Your task to perform on an android device: find which apps use the phone's location Image 0: 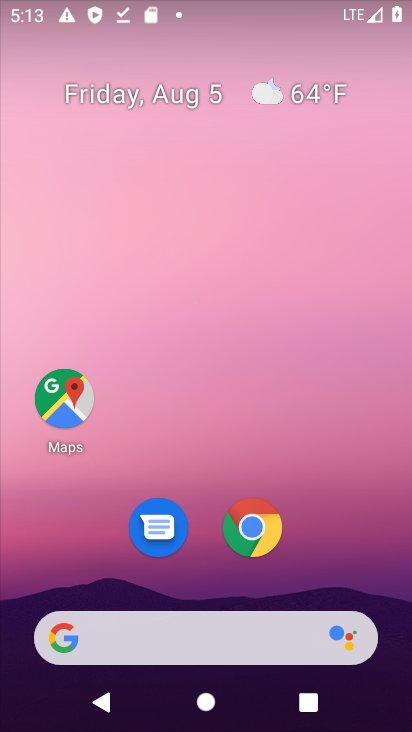
Step 0: drag from (227, 529) to (294, 110)
Your task to perform on an android device: find which apps use the phone's location Image 1: 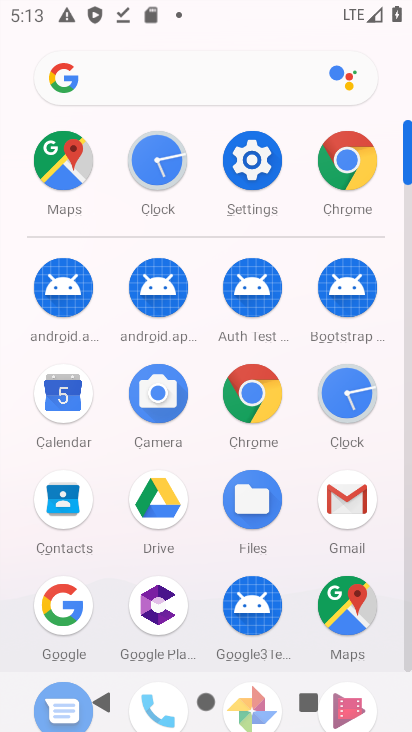
Step 1: click (234, 165)
Your task to perform on an android device: find which apps use the phone's location Image 2: 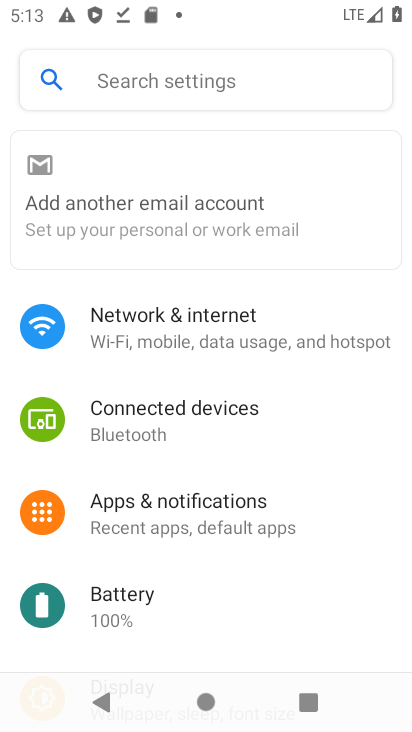
Step 2: drag from (177, 538) to (201, 134)
Your task to perform on an android device: find which apps use the phone's location Image 3: 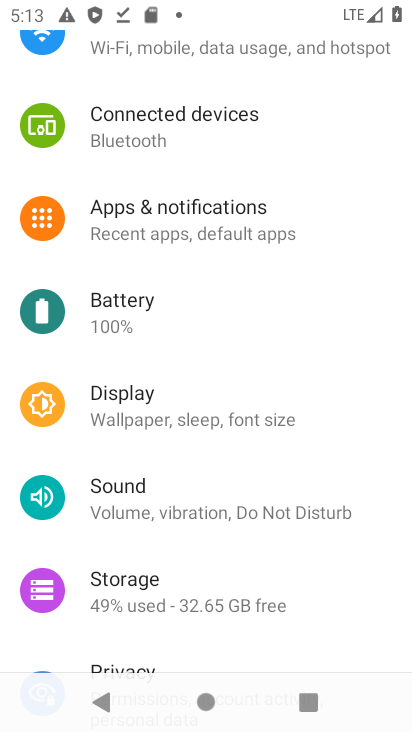
Step 3: drag from (196, 543) to (273, 148)
Your task to perform on an android device: find which apps use the phone's location Image 4: 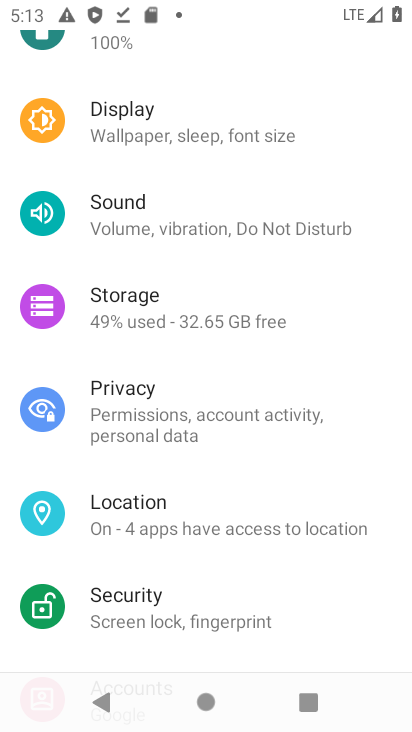
Step 4: click (142, 506)
Your task to perform on an android device: find which apps use the phone's location Image 5: 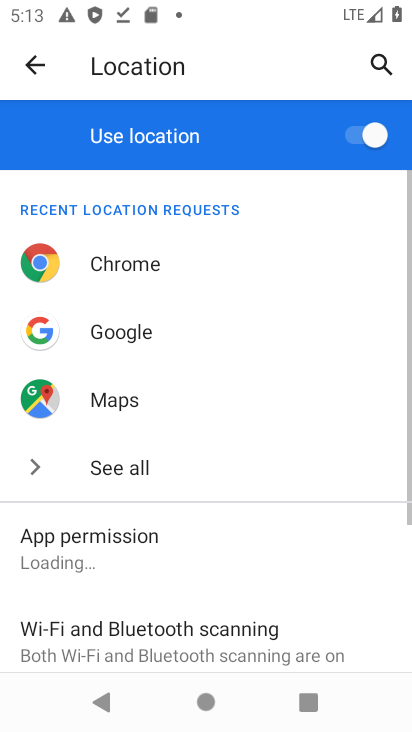
Step 5: drag from (143, 567) to (194, 228)
Your task to perform on an android device: find which apps use the phone's location Image 6: 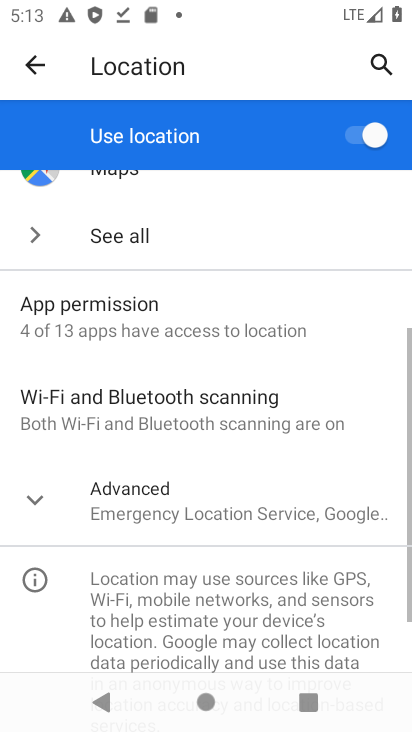
Step 6: click (109, 311)
Your task to perform on an android device: find which apps use the phone's location Image 7: 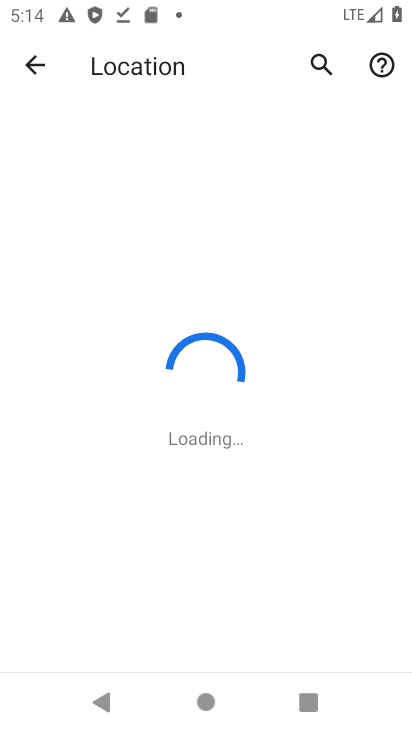
Step 7: task complete